Your task to perform on an android device: check the backup settings in the google photos Image 0: 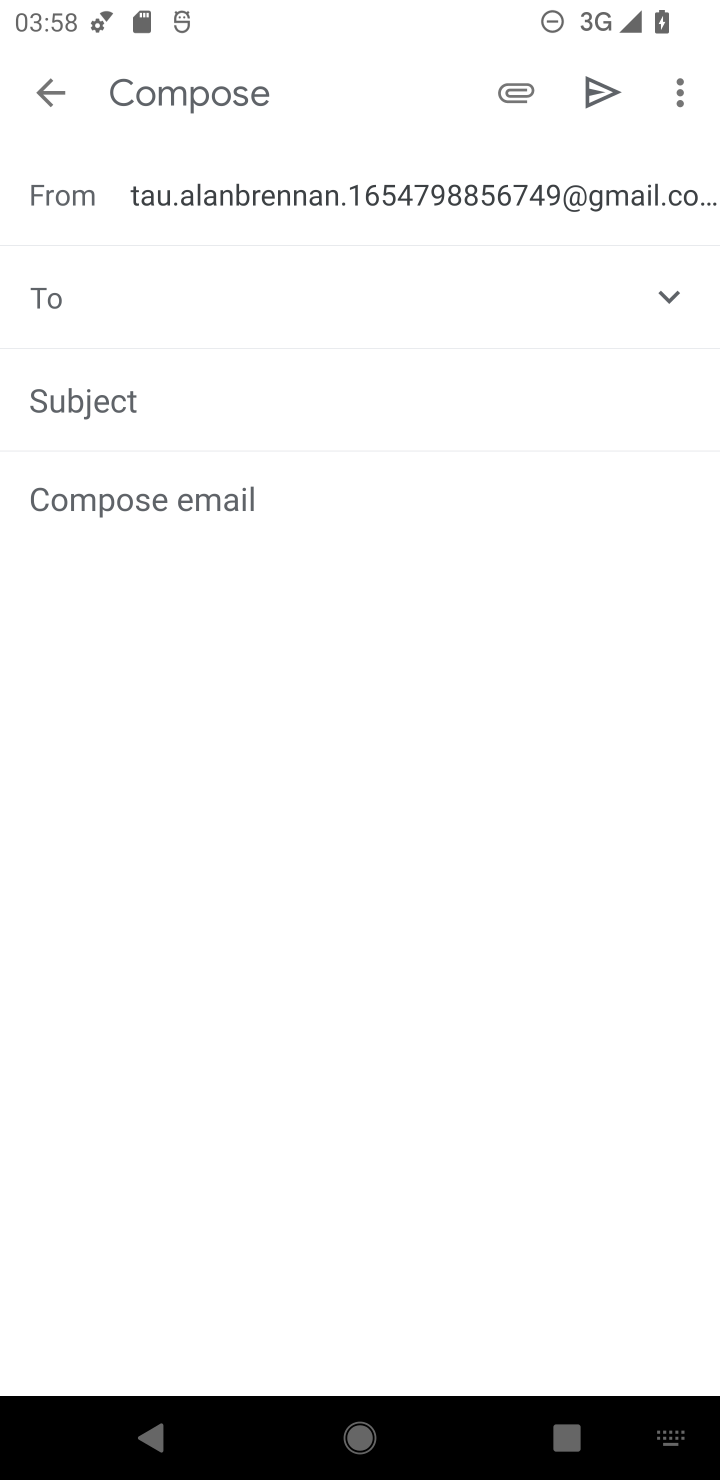
Step 0: press home button
Your task to perform on an android device: check the backup settings in the google photos Image 1: 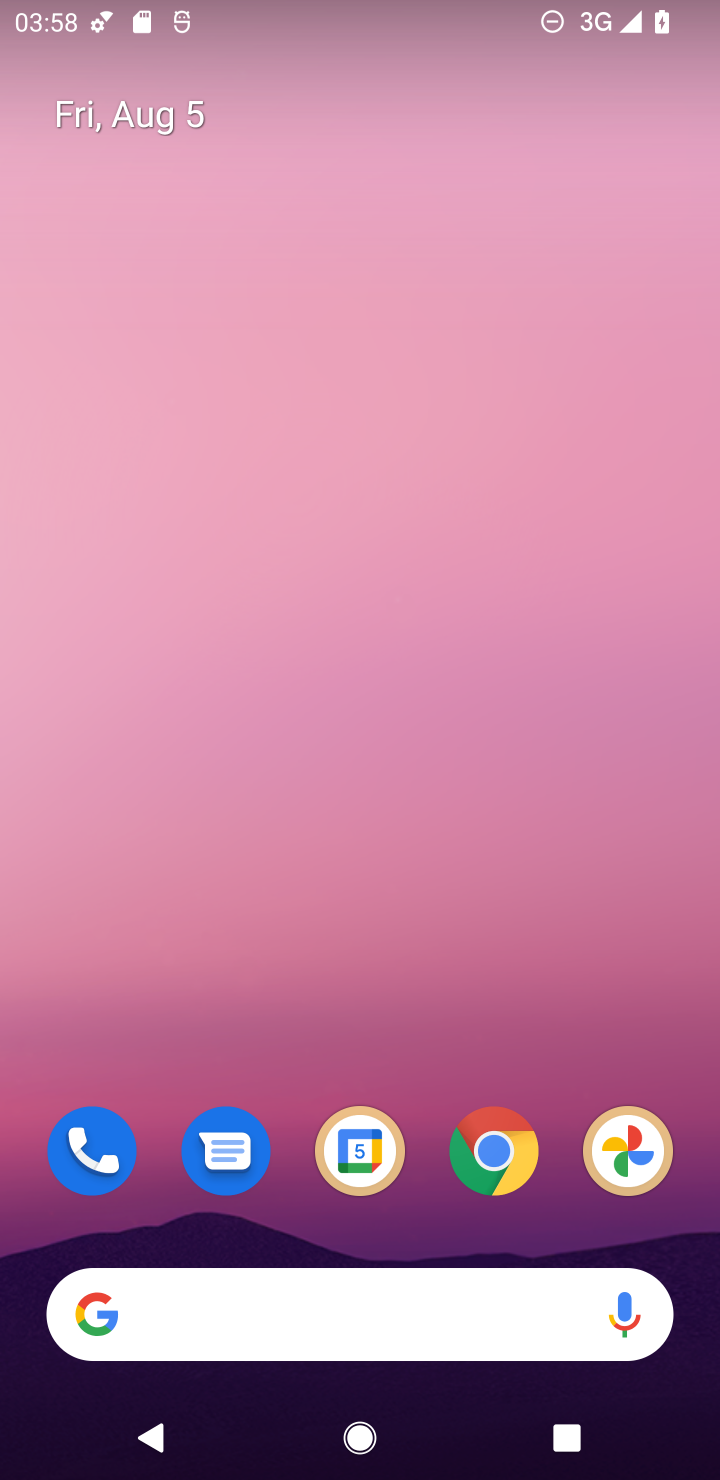
Step 1: click (638, 1151)
Your task to perform on an android device: check the backup settings in the google photos Image 2: 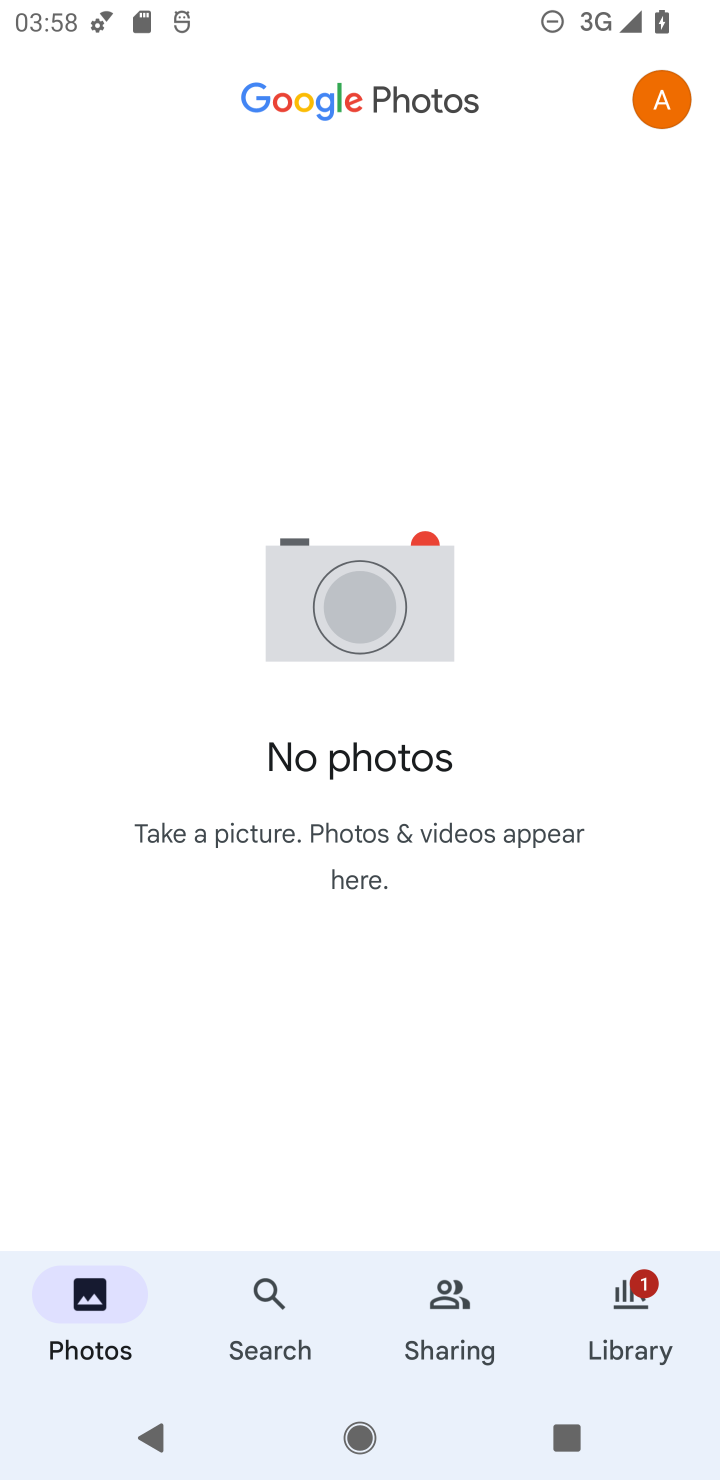
Step 2: click (671, 109)
Your task to perform on an android device: check the backup settings in the google photos Image 3: 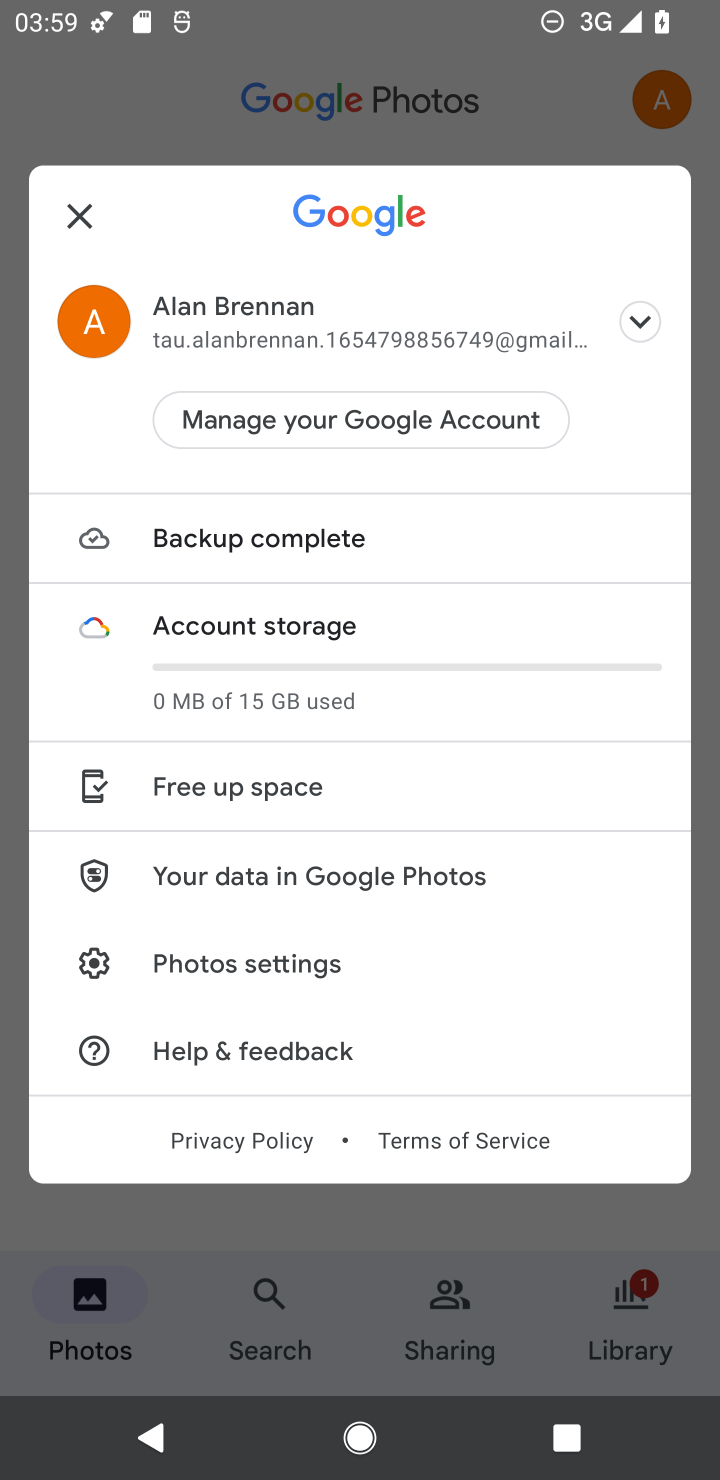
Step 3: click (211, 974)
Your task to perform on an android device: check the backup settings in the google photos Image 4: 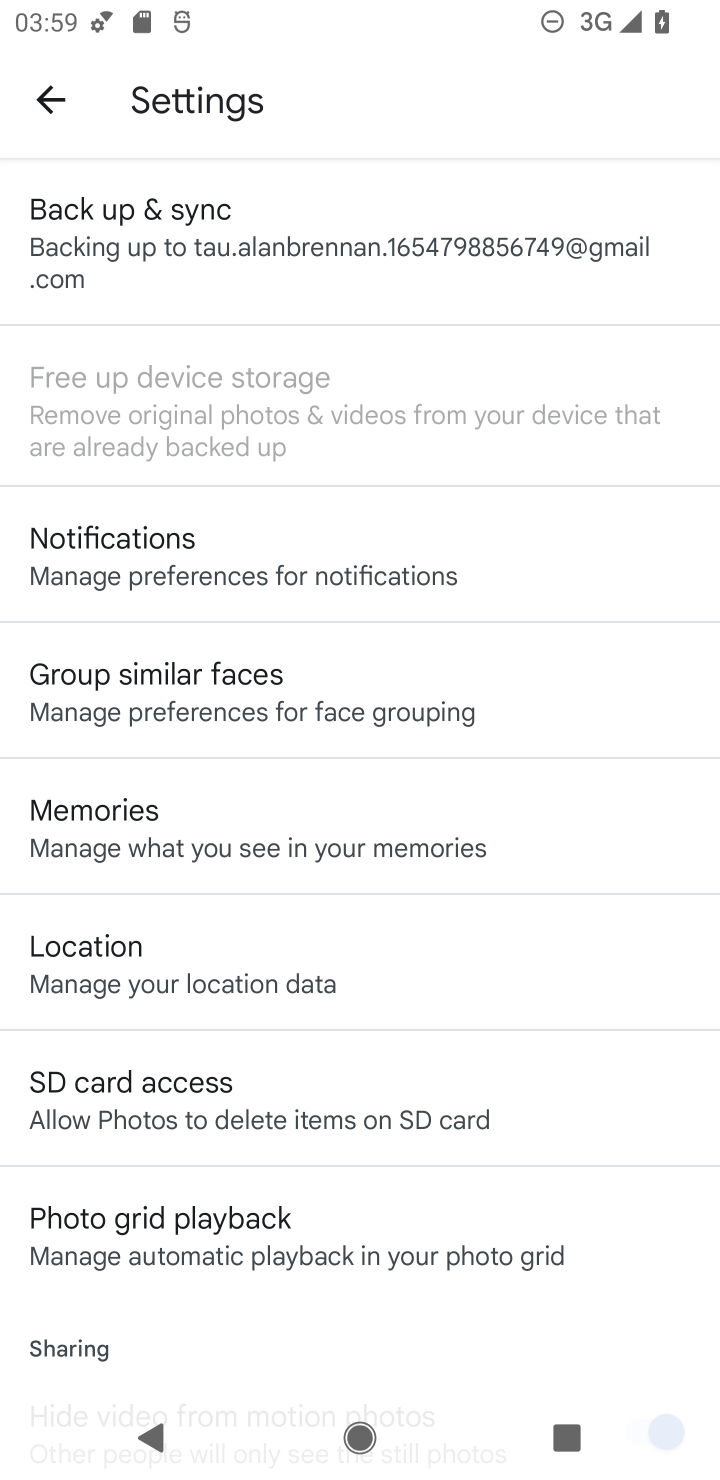
Step 4: click (512, 258)
Your task to perform on an android device: check the backup settings in the google photos Image 5: 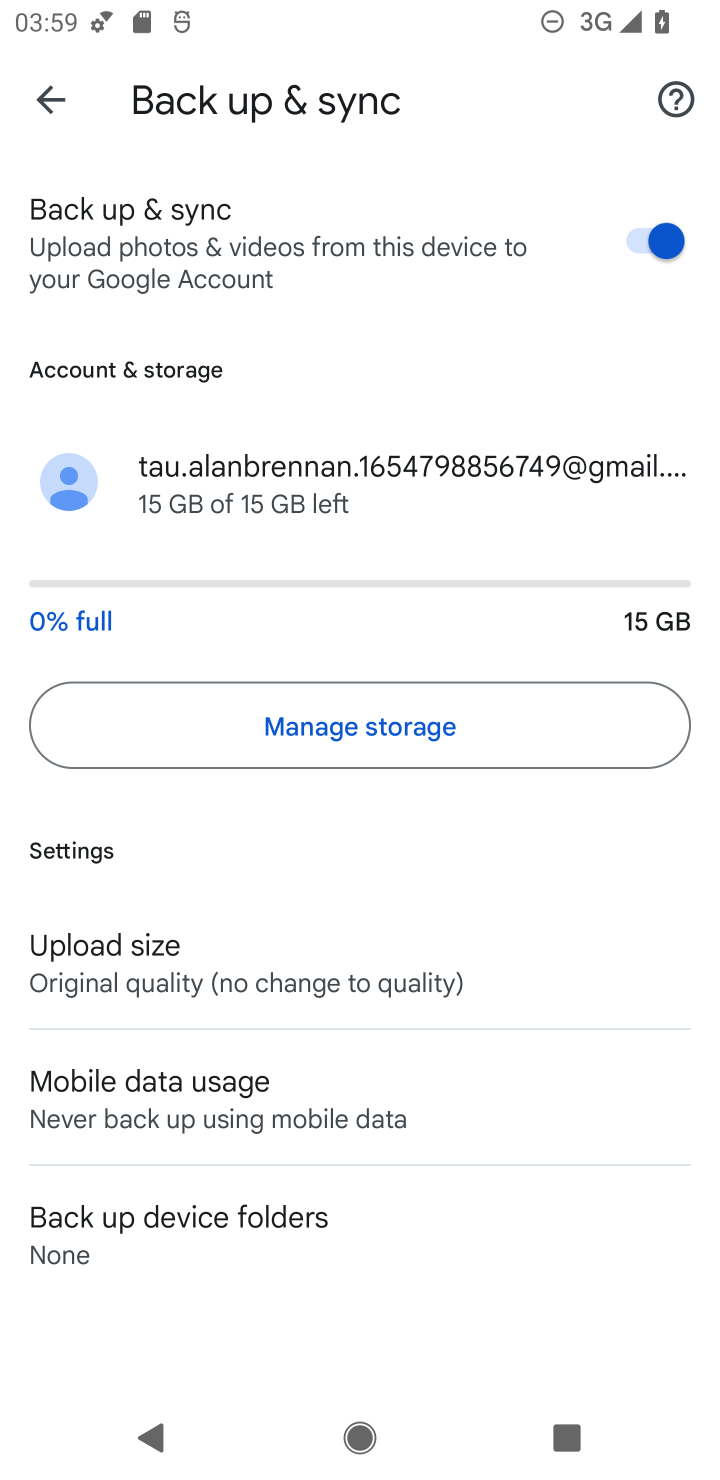
Step 5: task complete